Your task to perform on an android device: Search for Italian restaurants on Maps Image 0: 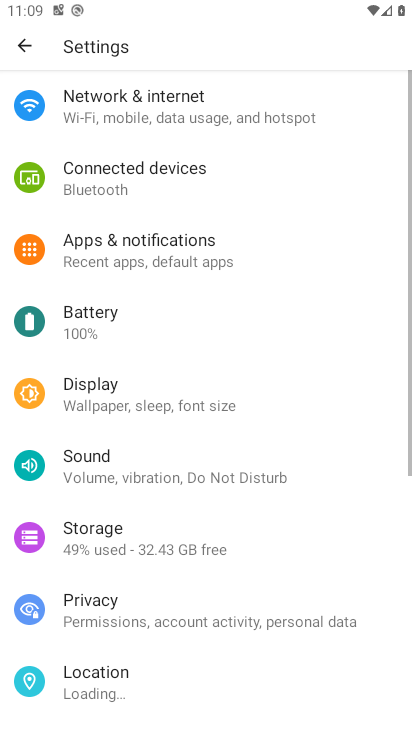
Step 0: press home button
Your task to perform on an android device: Search for Italian restaurants on Maps Image 1: 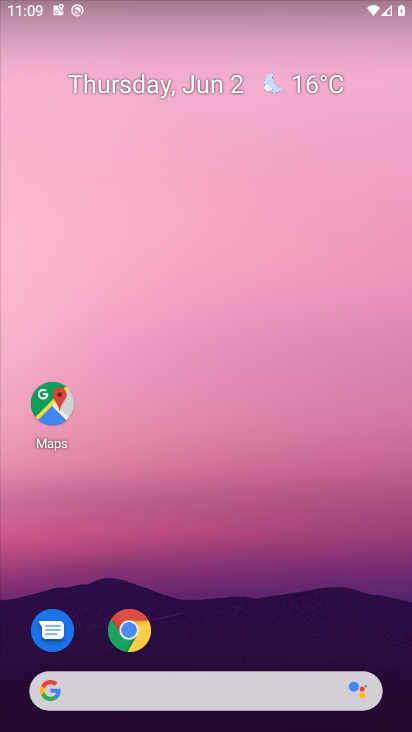
Step 1: click (55, 404)
Your task to perform on an android device: Search for Italian restaurants on Maps Image 2: 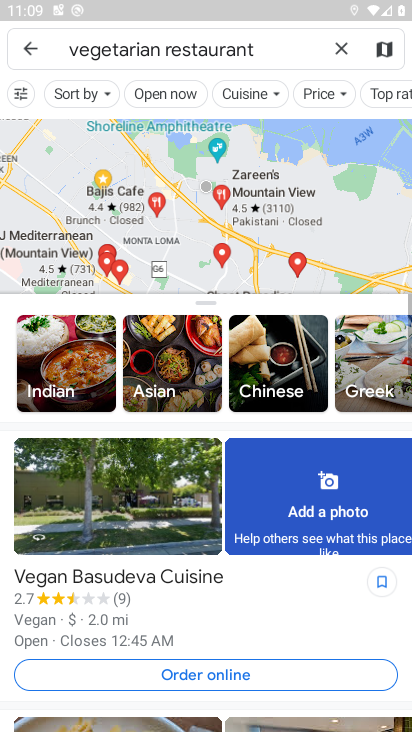
Step 2: click (104, 50)
Your task to perform on an android device: Search for Italian restaurants on Maps Image 3: 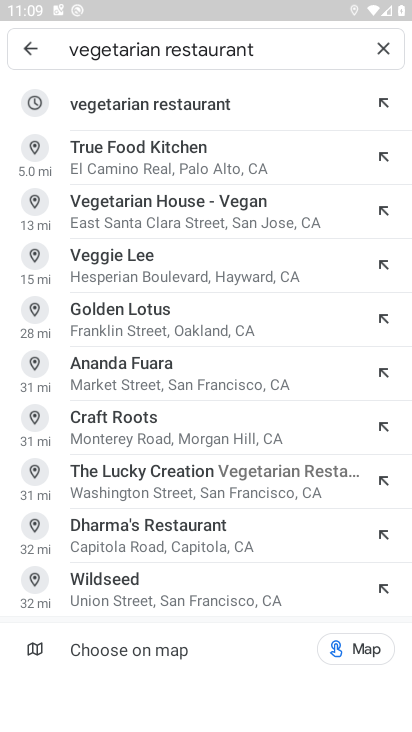
Step 3: click (117, 51)
Your task to perform on an android device: Search for Italian restaurants on Maps Image 4: 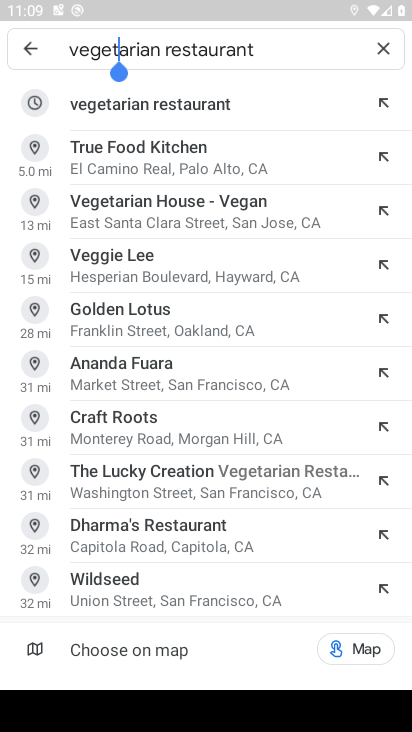
Step 4: click (117, 51)
Your task to perform on an android device: Search for Italian restaurants on Maps Image 5: 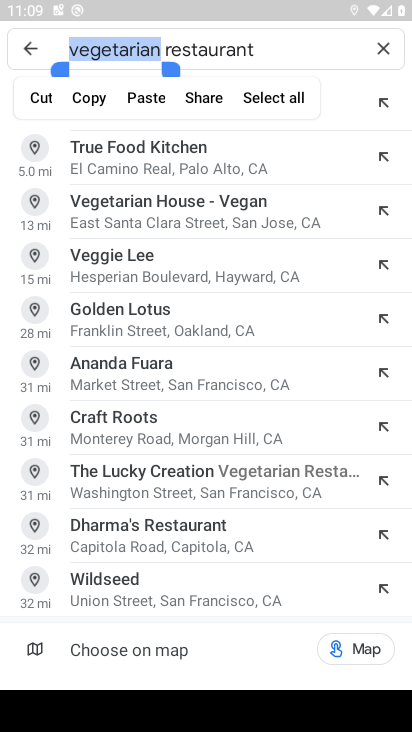
Step 5: type "Italian"
Your task to perform on an android device: Search for Italian restaurants on Maps Image 6: 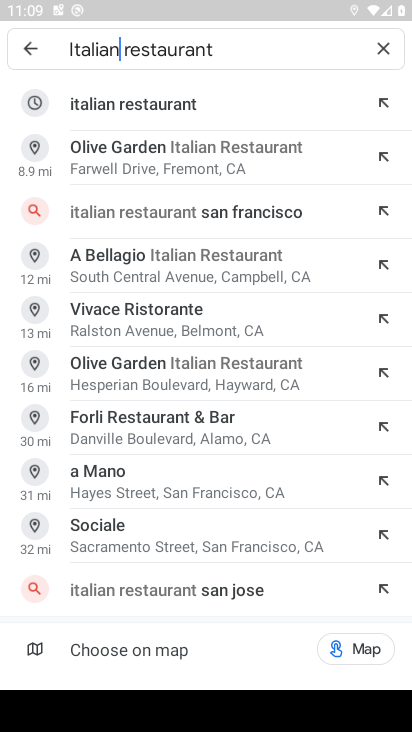
Step 6: click (200, 117)
Your task to perform on an android device: Search for Italian restaurants on Maps Image 7: 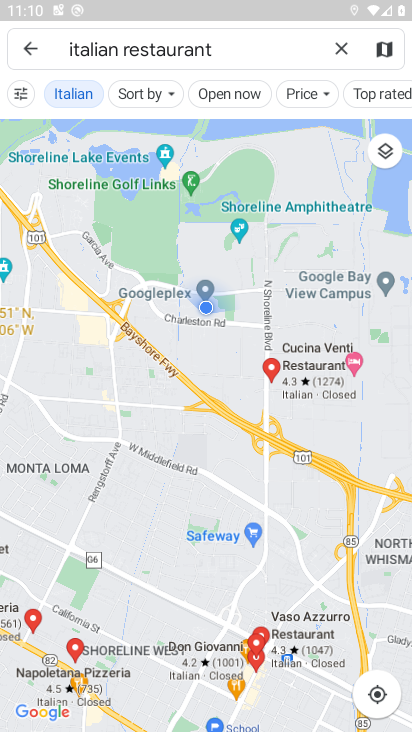
Step 7: click (285, 384)
Your task to perform on an android device: Search for Italian restaurants on Maps Image 8: 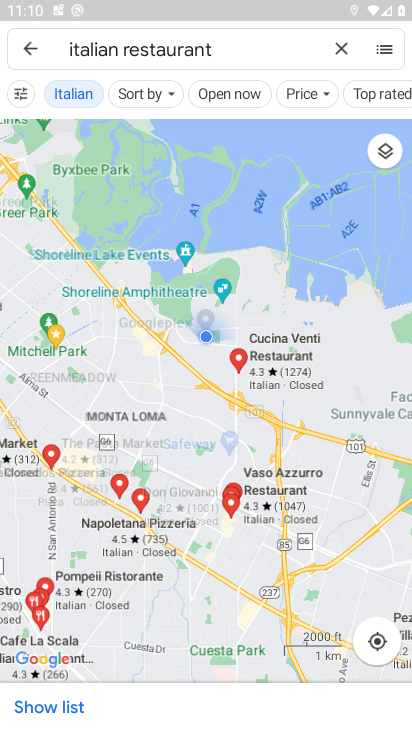
Step 8: task complete